Your task to perform on an android device: turn pop-ups on in chrome Image 0: 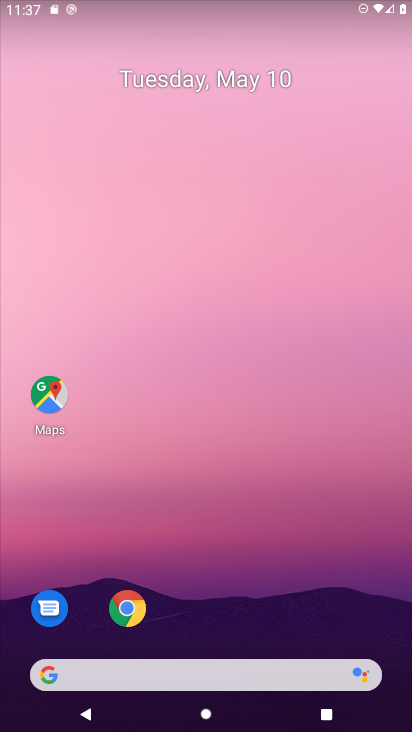
Step 0: drag from (287, 563) to (228, 154)
Your task to perform on an android device: turn pop-ups on in chrome Image 1: 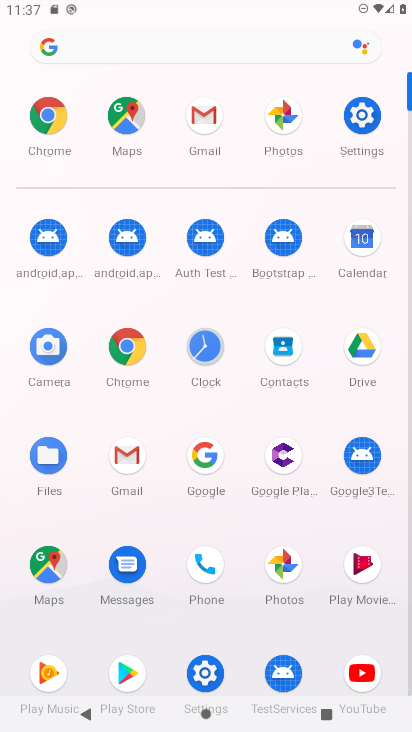
Step 1: click (49, 115)
Your task to perform on an android device: turn pop-ups on in chrome Image 2: 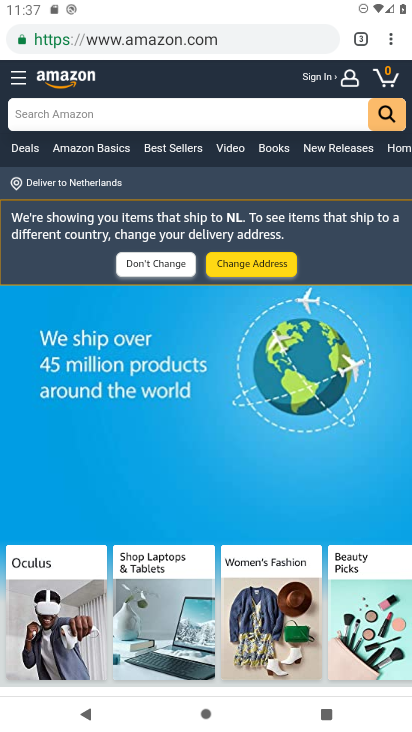
Step 2: click (388, 35)
Your task to perform on an android device: turn pop-ups on in chrome Image 3: 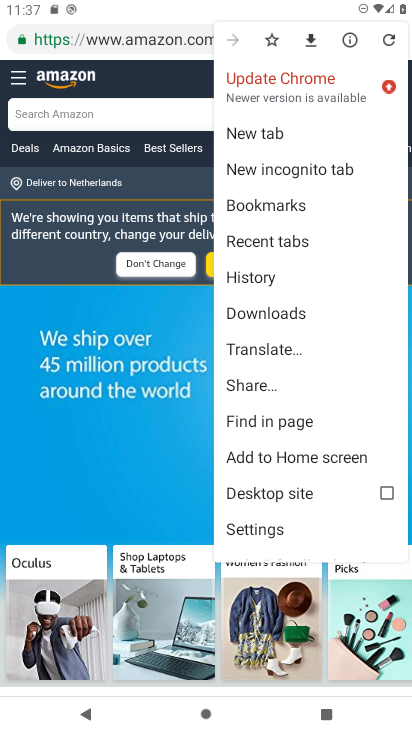
Step 3: click (288, 525)
Your task to perform on an android device: turn pop-ups on in chrome Image 4: 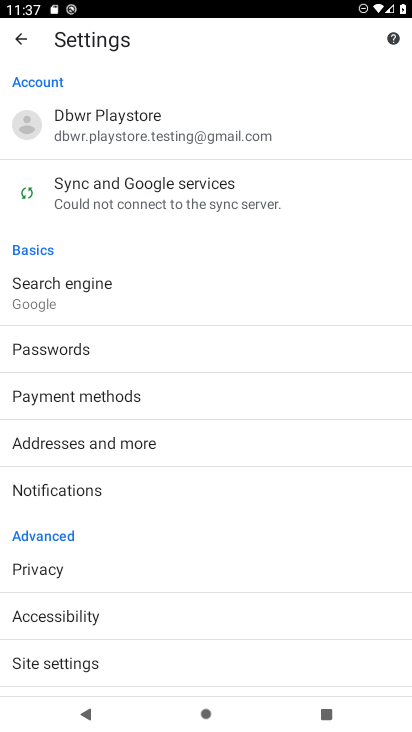
Step 4: click (159, 653)
Your task to perform on an android device: turn pop-ups on in chrome Image 5: 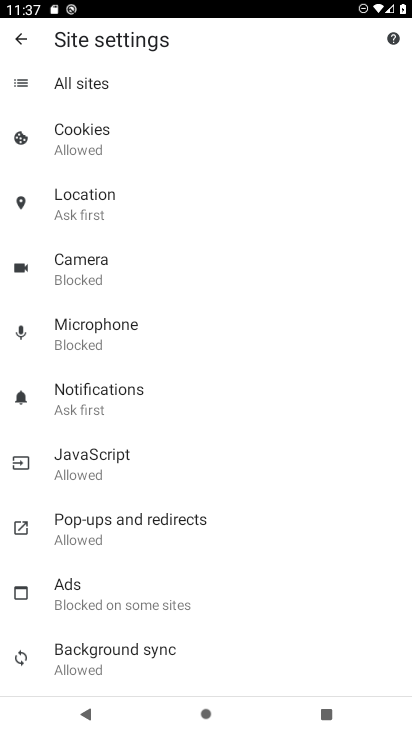
Step 5: click (202, 536)
Your task to perform on an android device: turn pop-ups on in chrome Image 6: 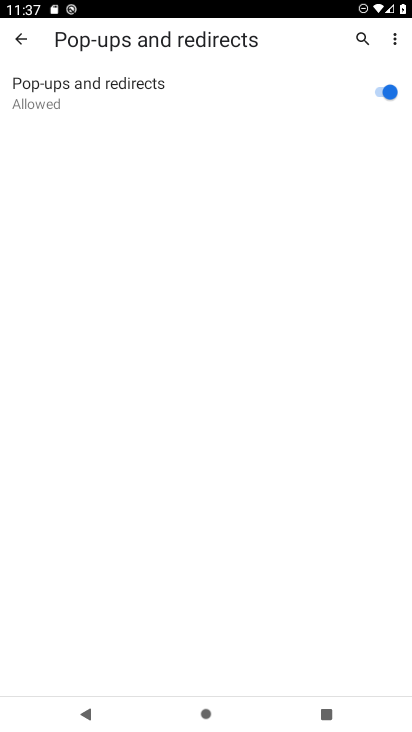
Step 6: task complete